Your task to perform on an android device: turn pop-ups off in chrome Image 0: 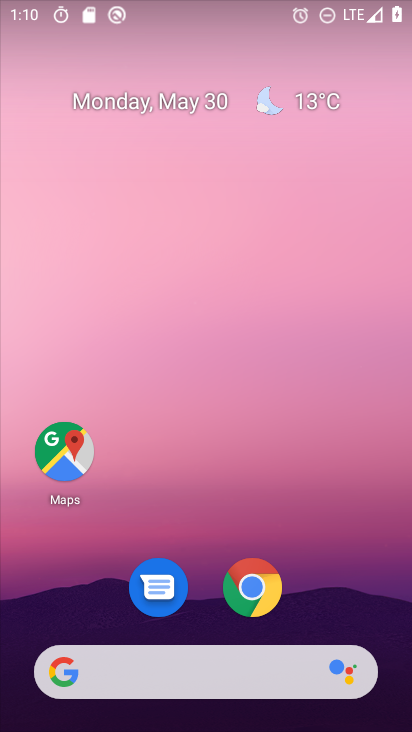
Step 0: drag from (357, 582) to (264, 157)
Your task to perform on an android device: turn pop-ups off in chrome Image 1: 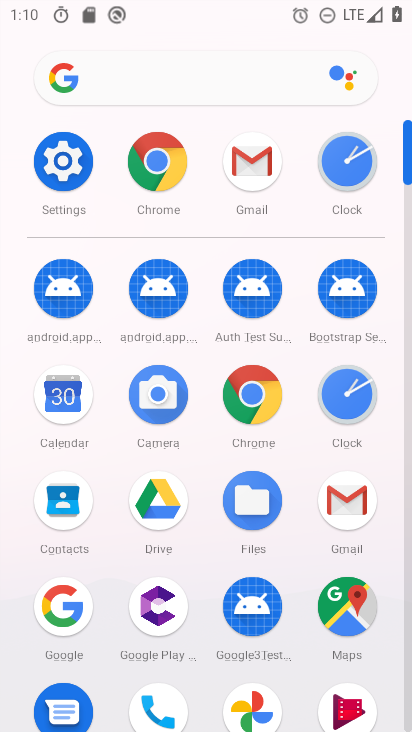
Step 1: click (249, 398)
Your task to perform on an android device: turn pop-ups off in chrome Image 2: 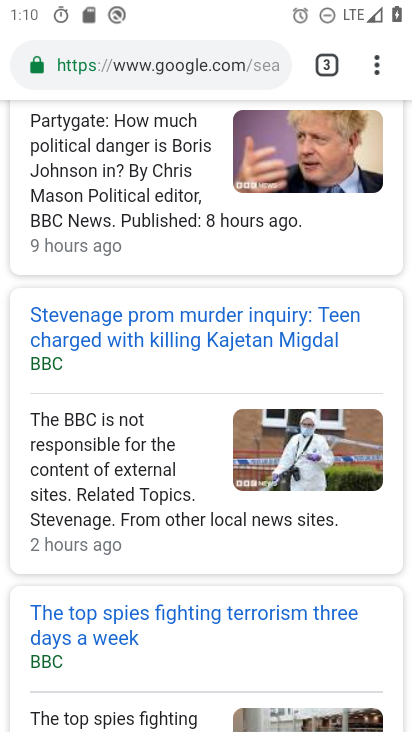
Step 2: click (378, 61)
Your task to perform on an android device: turn pop-ups off in chrome Image 3: 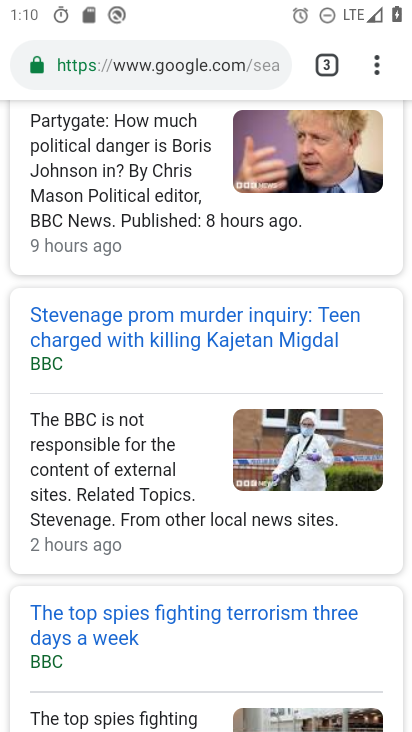
Step 3: drag from (384, 58) to (191, 641)
Your task to perform on an android device: turn pop-ups off in chrome Image 4: 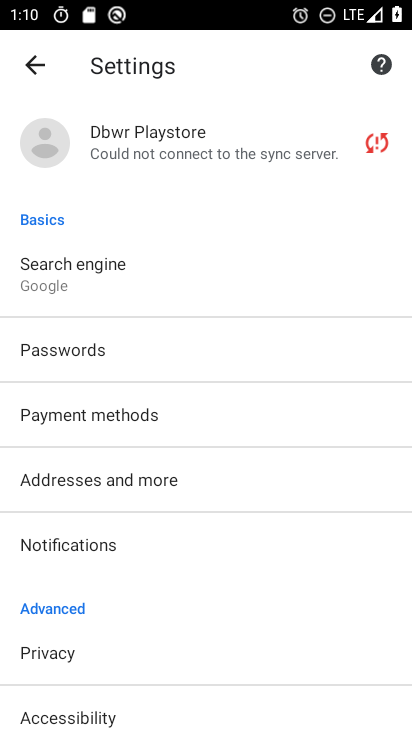
Step 4: drag from (271, 563) to (237, 218)
Your task to perform on an android device: turn pop-ups off in chrome Image 5: 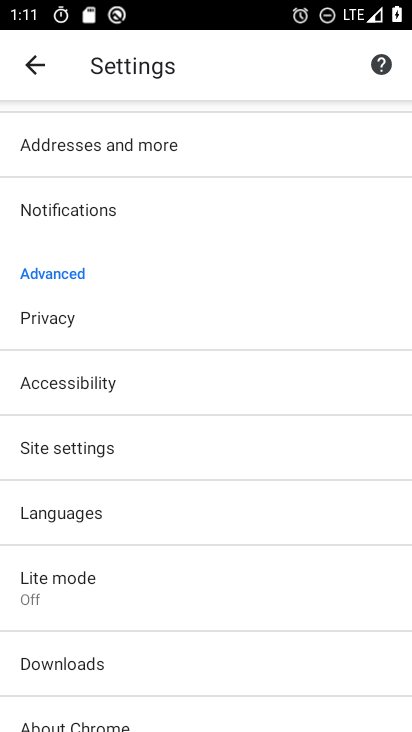
Step 5: click (135, 443)
Your task to perform on an android device: turn pop-ups off in chrome Image 6: 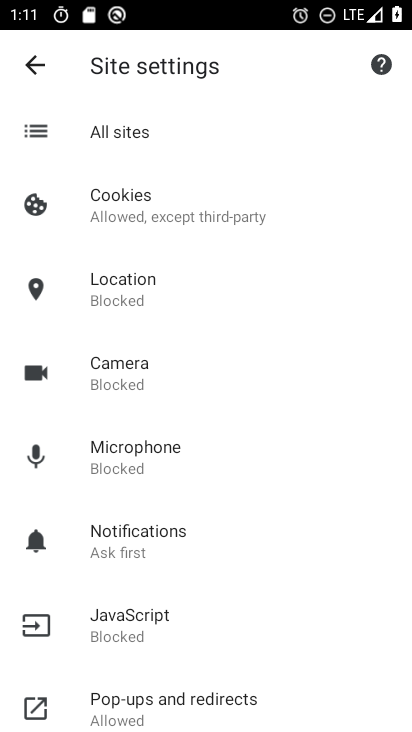
Step 6: drag from (230, 670) to (212, 332)
Your task to perform on an android device: turn pop-ups off in chrome Image 7: 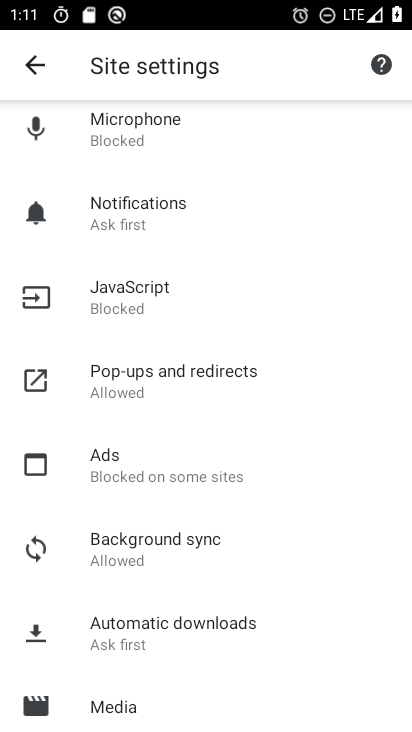
Step 7: click (157, 385)
Your task to perform on an android device: turn pop-ups off in chrome Image 8: 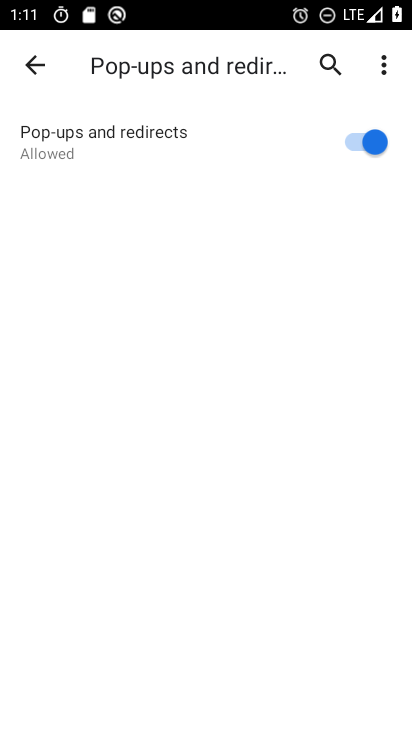
Step 8: click (375, 128)
Your task to perform on an android device: turn pop-ups off in chrome Image 9: 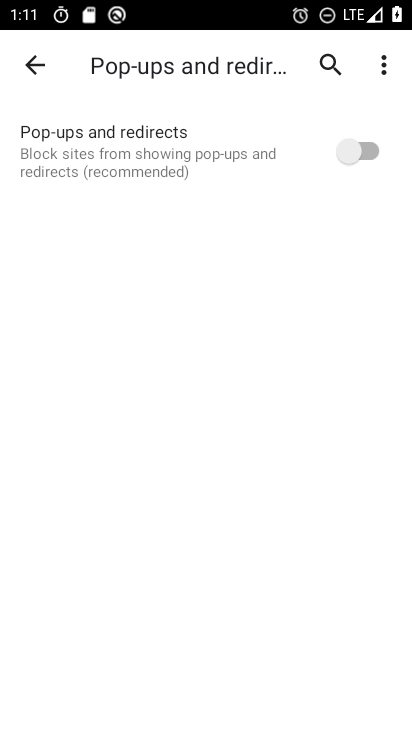
Step 9: task complete